Your task to perform on an android device: all mails in gmail Image 0: 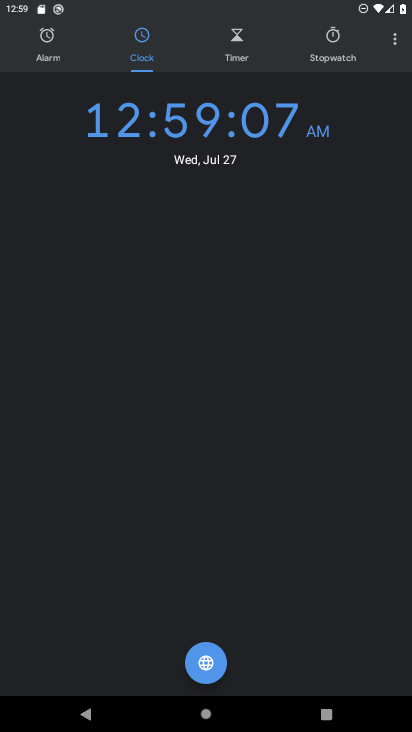
Step 0: press home button
Your task to perform on an android device: all mails in gmail Image 1: 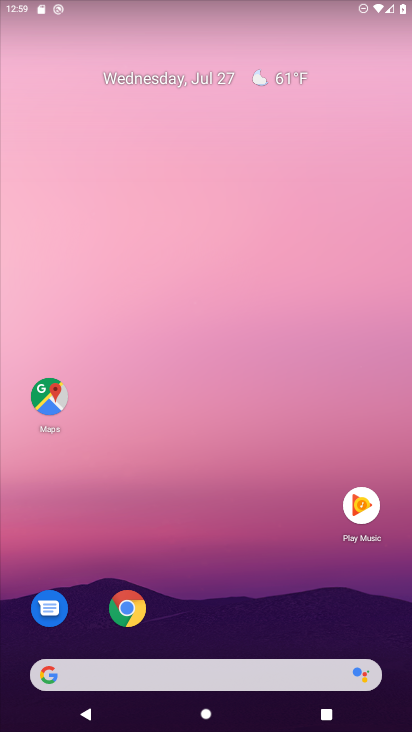
Step 1: drag from (278, 626) to (300, 105)
Your task to perform on an android device: all mails in gmail Image 2: 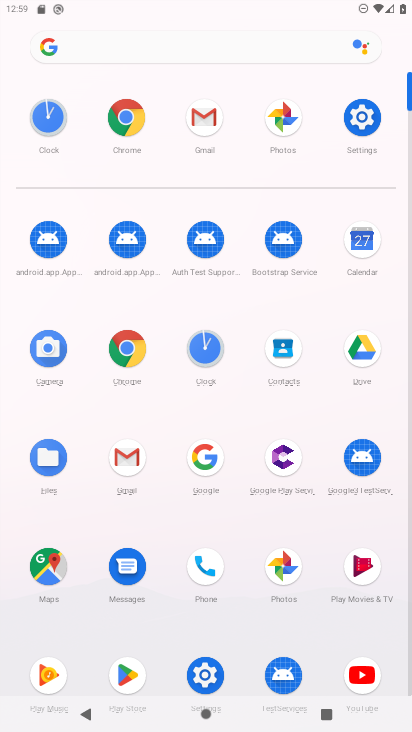
Step 2: click (130, 460)
Your task to perform on an android device: all mails in gmail Image 3: 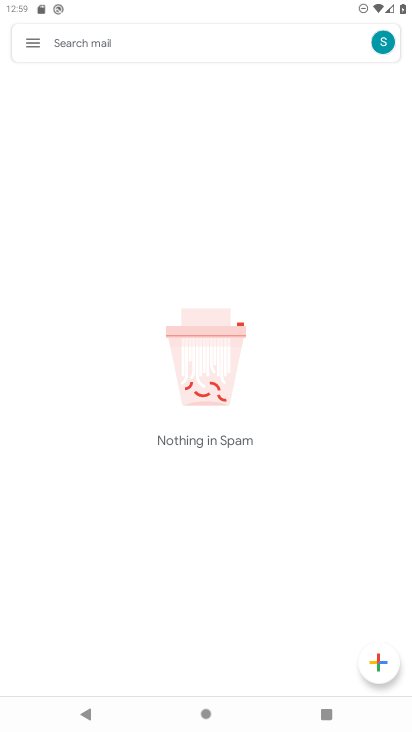
Step 3: click (27, 37)
Your task to perform on an android device: all mails in gmail Image 4: 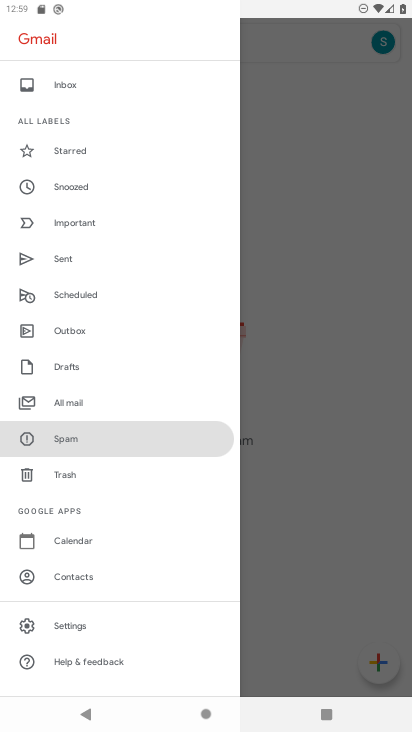
Step 4: click (125, 399)
Your task to perform on an android device: all mails in gmail Image 5: 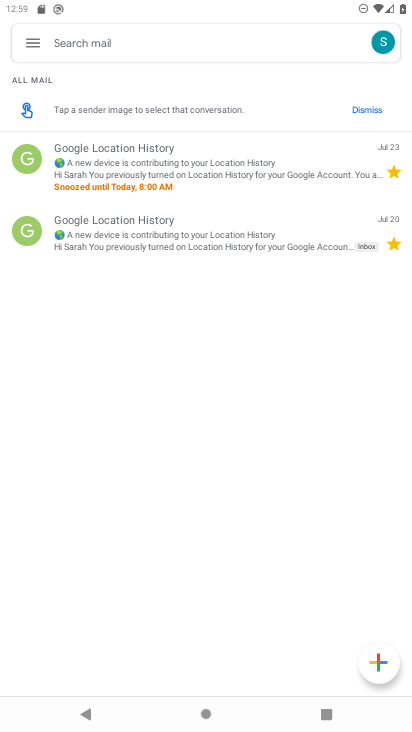
Step 5: task complete